Your task to perform on an android device: Show me productivity apps on the Play Store Image 0: 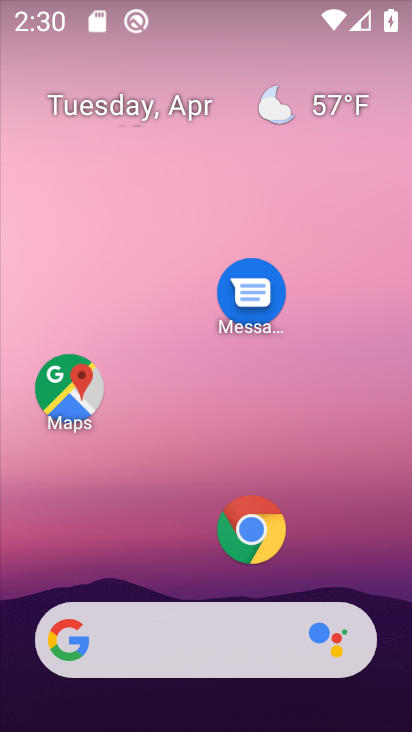
Step 0: drag from (147, 506) to (166, 137)
Your task to perform on an android device: Show me productivity apps on the Play Store Image 1: 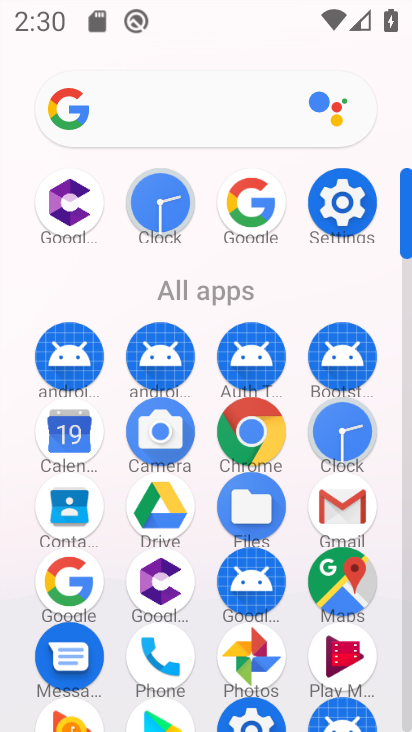
Step 1: click (160, 716)
Your task to perform on an android device: Show me productivity apps on the Play Store Image 2: 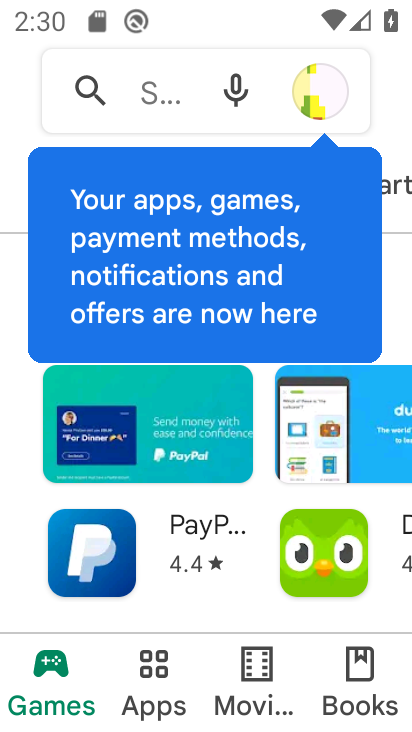
Step 2: click (167, 687)
Your task to perform on an android device: Show me productivity apps on the Play Store Image 3: 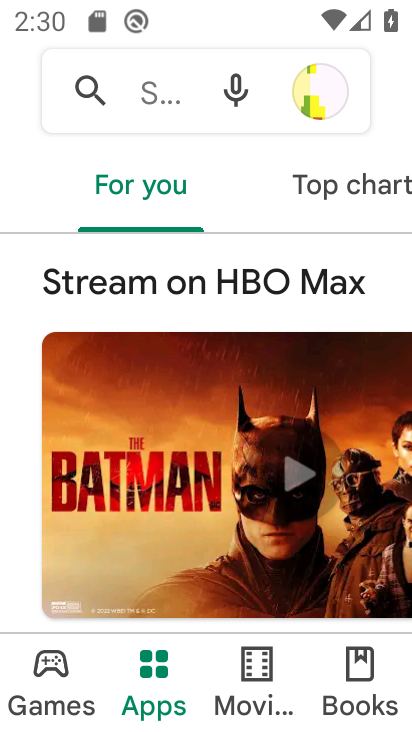
Step 3: drag from (232, 537) to (258, 77)
Your task to perform on an android device: Show me productivity apps on the Play Store Image 4: 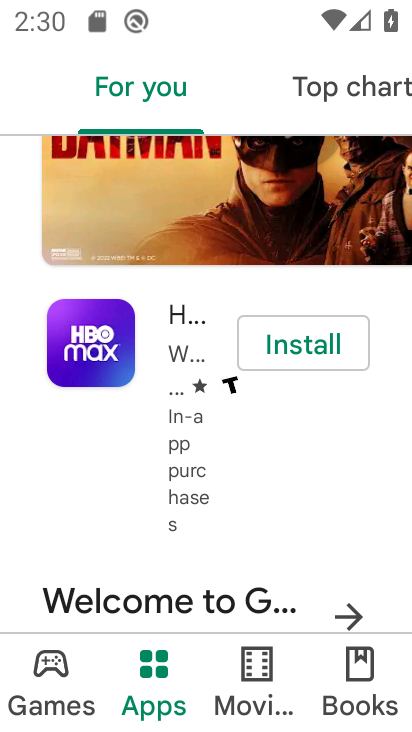
Step 4: drag from (252, 501) to (236, 156)
Your task to perform on an android device: Show me productivity apps on the Play Store Image 5: 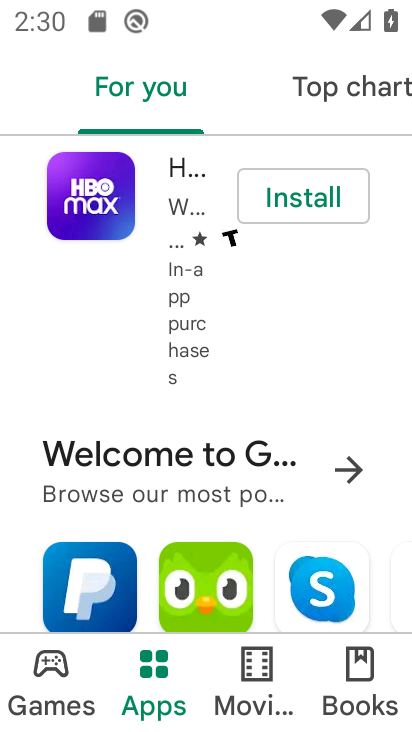
Step 5: drag from (294, 531) to (283, 183)
Your task to perform on an android device: Show me productivity apps on the Play Store Image 6: 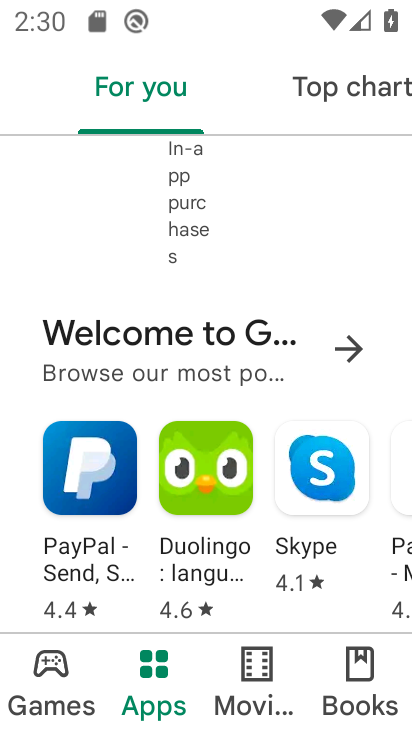
Step 6: drag from (283, 529) to (267, 282)
Your task to perform on an android device: Show me productivity apps on the Play Store Image 7: 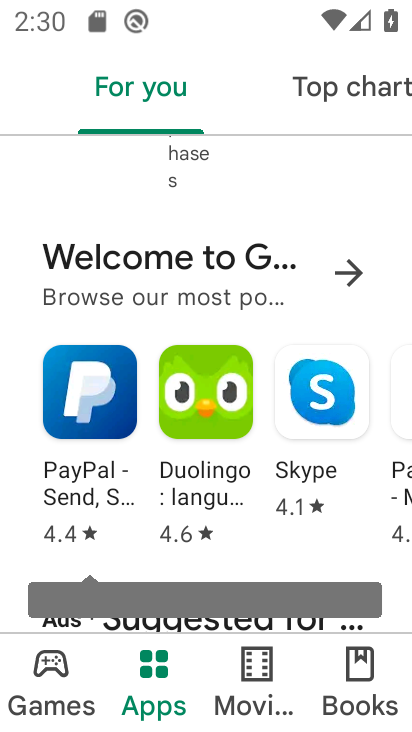
Step 7: click (330, 265)
Your task to perform on an android device: Show me productivity apps on the Play Store Image 8: 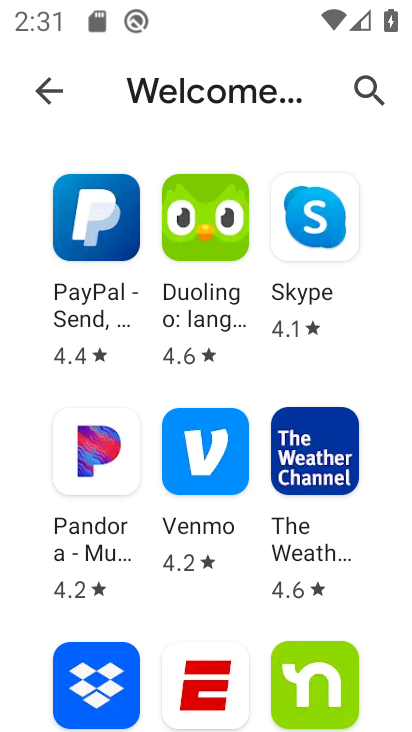
Step 8: task complete